Your task to perform on an android device: Open location settings Image 0: 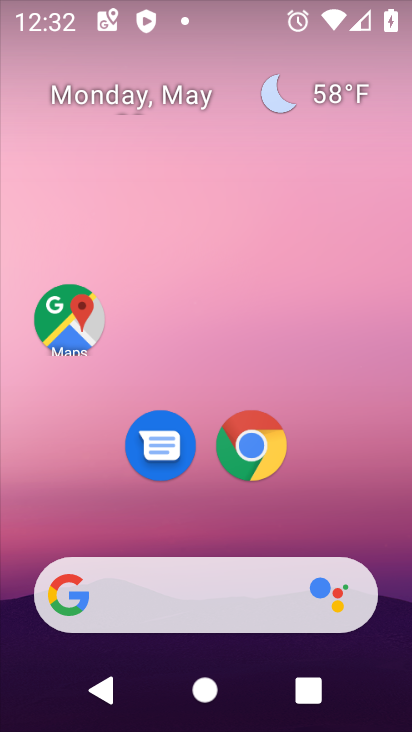
Step 0: drag from (210, 537) to (176, 40)
Your task to perform on an android device: Open location settings Image 1: 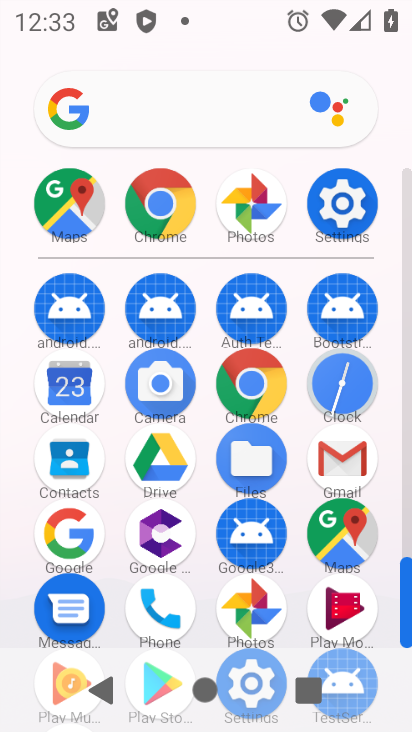
Step 1: click (339, 194)
Your task to perform on an android device: Open location settings Image 2: 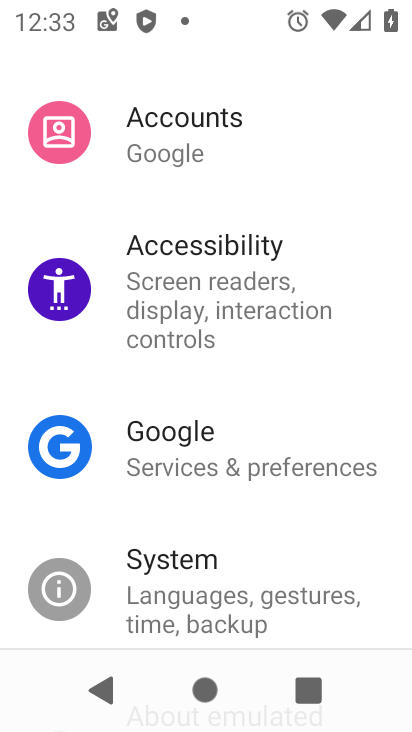
Step 2: drag from (232, 165) to (267, 680)
Your task to perform on an android device: Open location settings Image 3: 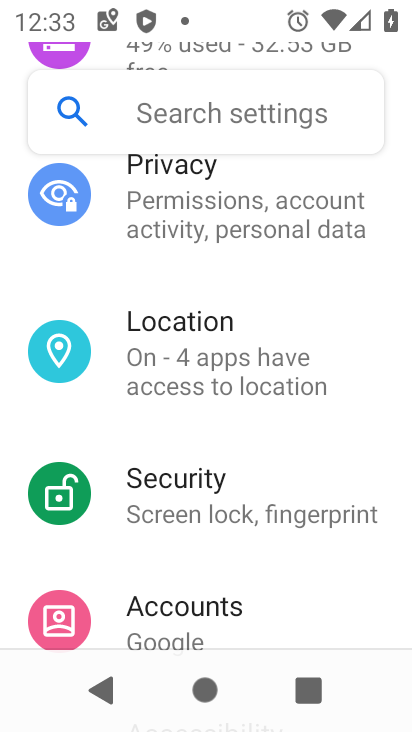
Step 3: click (242, 316)
Your task to perform on an android device: Open location settings Image 4: 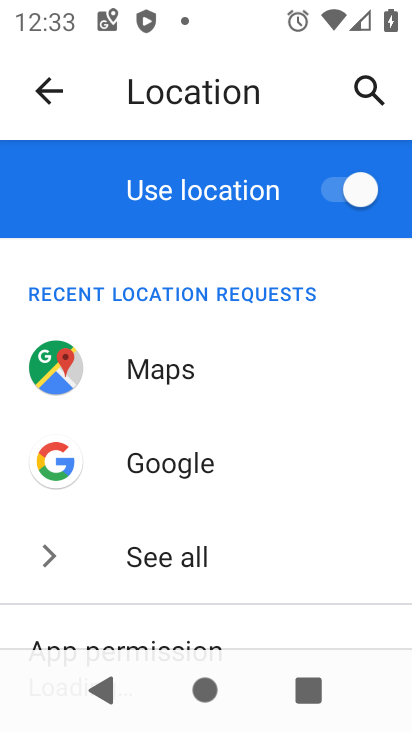
Step 4: drag from (219, 603) to (226, 118)
Your task to perform on an android device: Open location settings Image 5: 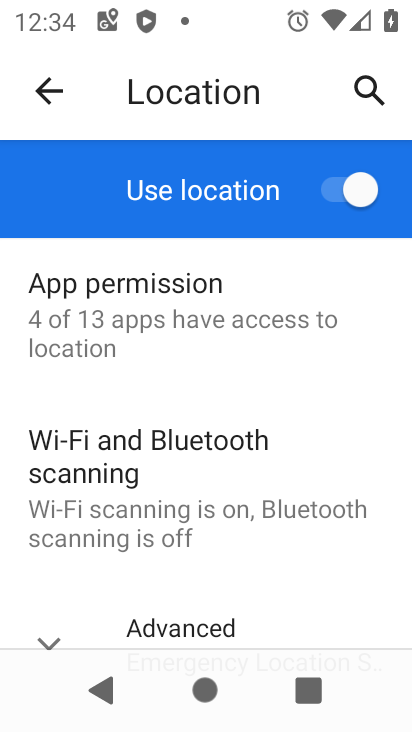
Step 5: drag from (205, 596) to (200, 205)
Your task to perform on an android device: Open location settings Image 6: 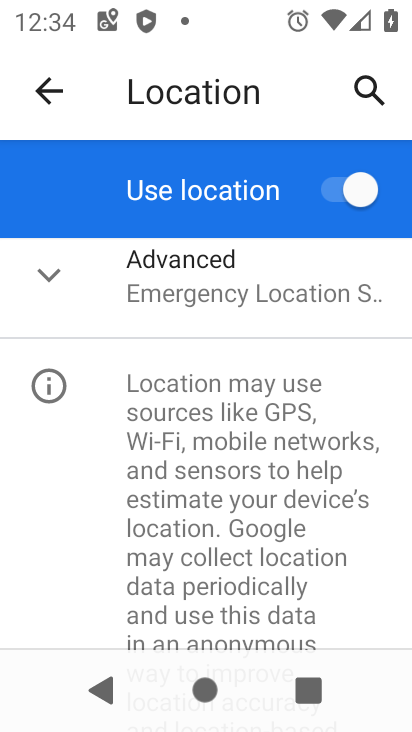
Step 6: click (52, 273)
Your task to perform on an android device: Open location settings Image 7: 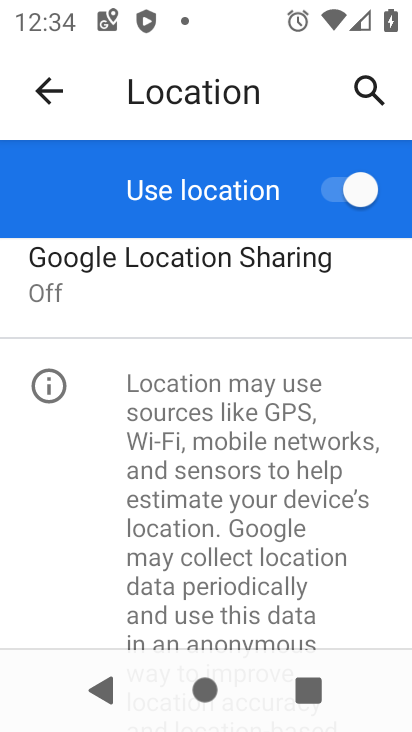
Step 7: task complete